Your task to perform on an android device: Open Youtube and go to the subscriptions tab Image 0: 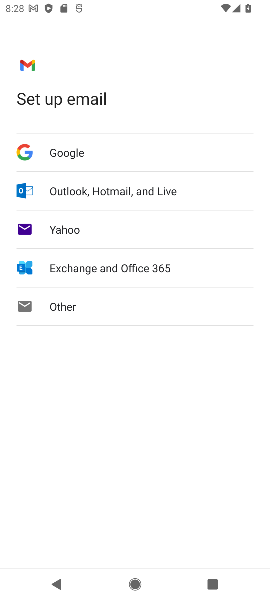
Step 0: press home button
Your task to perform on an android device: Open Youtube and go to the subscriptions tab Image 1: 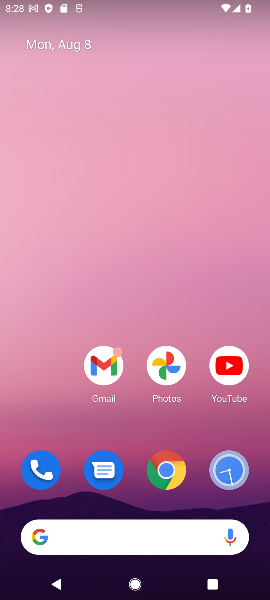
Step 1: click (228, 368)
Your task to perform on an android device: Open Youtube and go to the subscriptions tab Image 2: 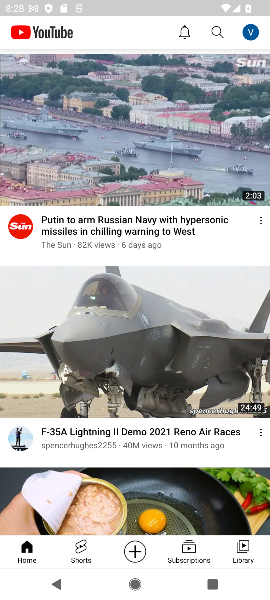
Step 2: click (185, 545)
Your task to perform on an android device: Open Youtube and go to the subscriptions tab Image 3: 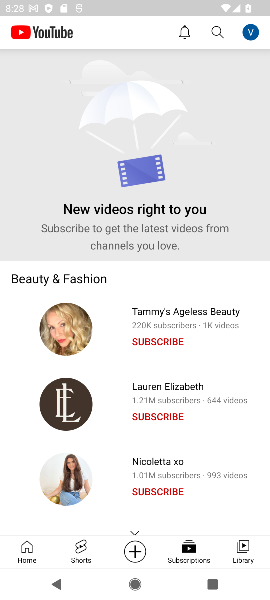
Step 3: task complete